Your task to perform on an android device: open the mobile data screen to see how much data has been used Image 0: 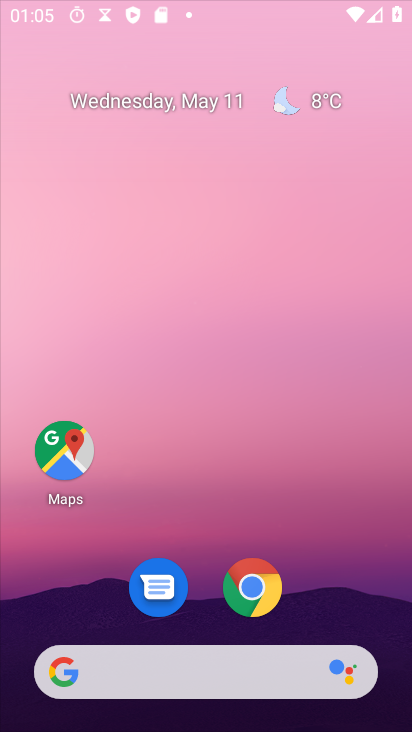
Step 0: click (98, 18)
Your task to perform on an android device: open the mobile data screen to see how much data has been used Image 1: 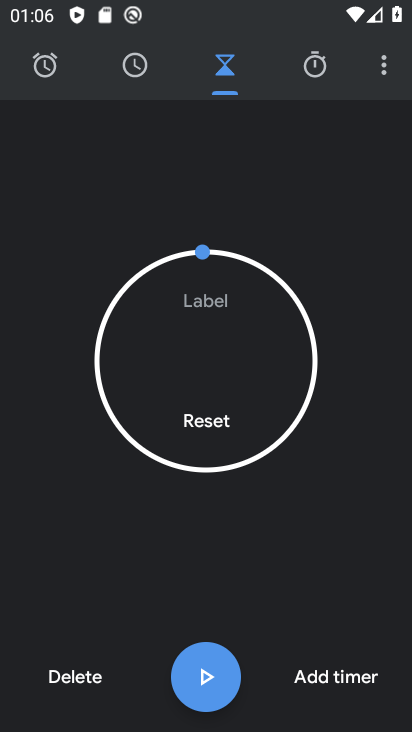
Step 1: press back button
Your task to perform on an android device: open the mobile data screen to see how much data has been used Image 2: 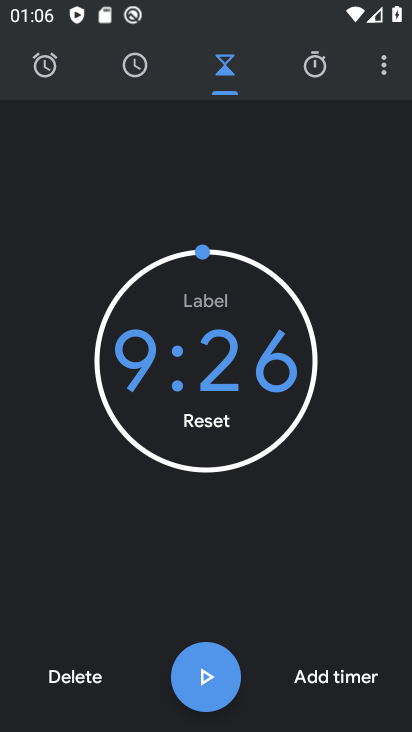
Step 2: press back button
Your task to perform on an android device: open the mobile data screen to see how much data has been used Image 3: 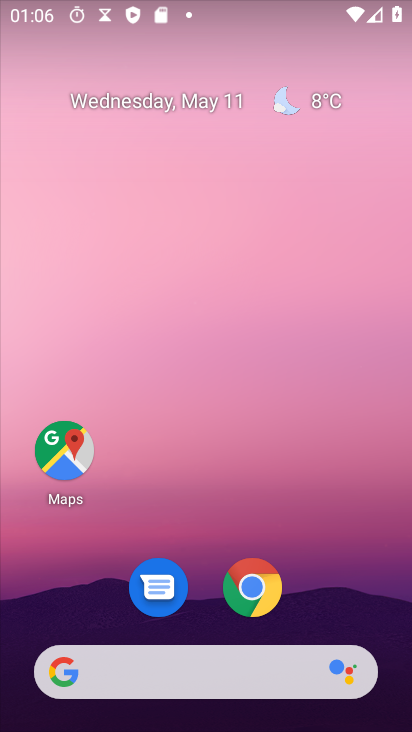
Step 3: drag from (325, 615) to (75, 91)
Your task to perform on an android device: open the mobile data screen to see how much data has been used Image 4: 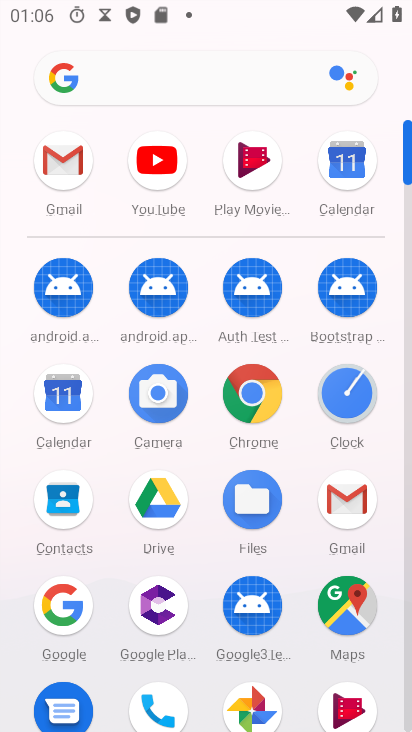
Step 4: drag from (206, 526) to (181, 236)
Your task to perform on an android device: open the mobile data screen to see how much data has been used Image 5: 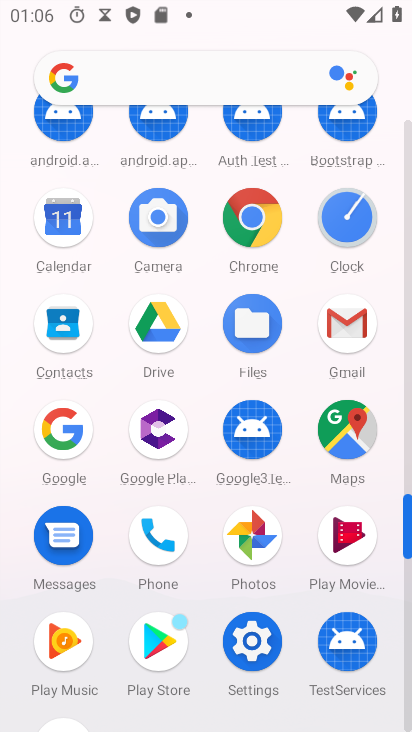
Step 5: click (251, 646)
Your task to perform on an android device: open the mobile data screen to see how much data has been used Image 6: 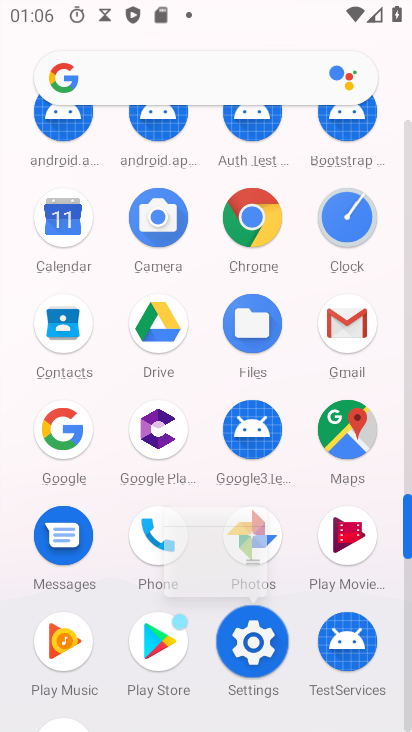
Step 6: click (250, 645)
Your task to perform on an android device: open the mobile data screen to see how much data has been used Image 7: 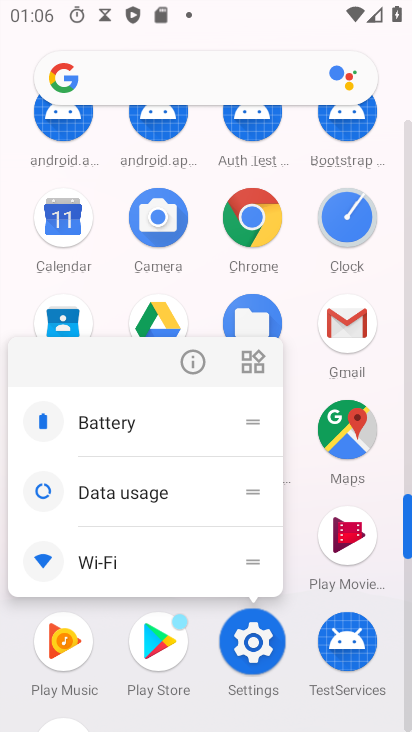
Step 7: click (250, 645)
Your task to perform on an android device: open the mobile data screen to see how much data has been used Image 8: 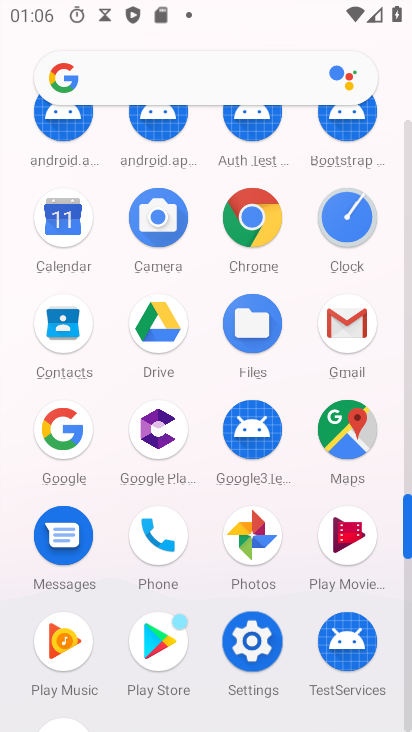
Step 8: click (250, 645)
Your task to perform on an android device: open the mobile data screen to see how much data has been used Image 9: 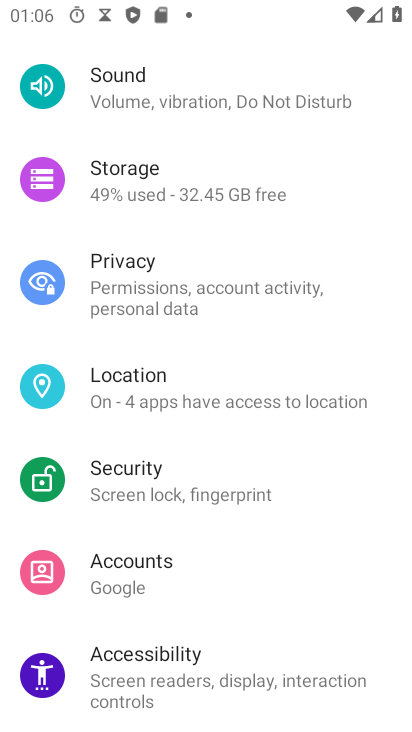
Step 9: drag from (99, 97) to (155, 446)
Your task to perform on an android device: open the mobile data screen to see how much data has been used Image 10: 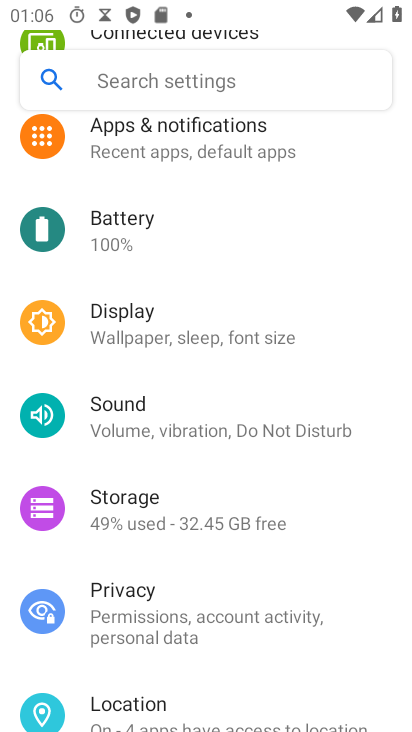
Step 10: drag from (123, 212) to (120, 529)
Your task to perform on an android device: open the mobile data screen to see how much data has been used Image 11: 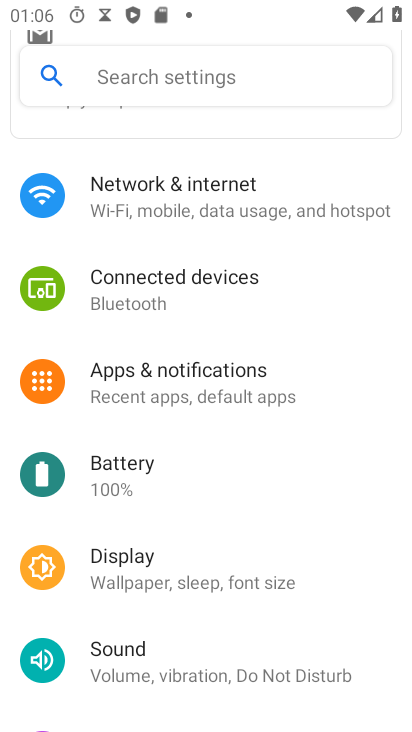
Step 11: click (136, 195)
Your task to perform on an android device: open the mobile data screen to see how much data has been used Image 12: 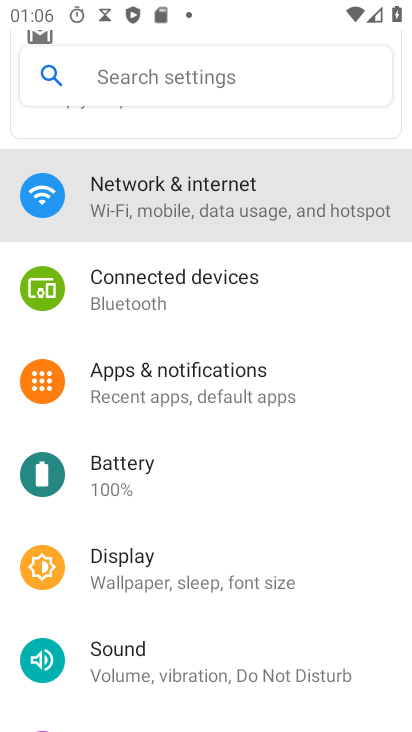
Step 12: click (137, 194)
Your task to perform on an android device: open the mobile data screen to see how much data has been used Image 13: 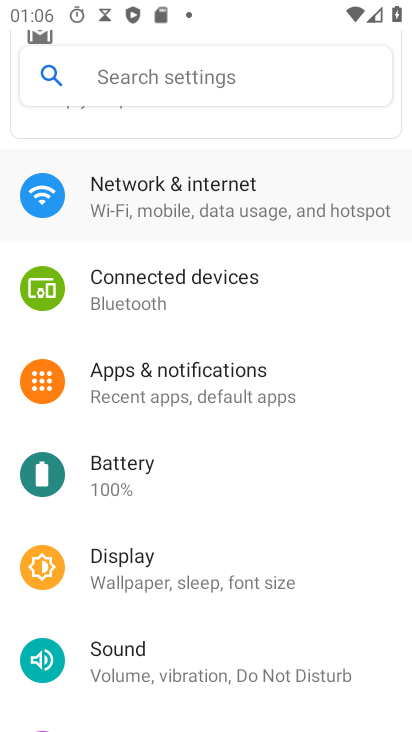
Step 13: click (137, 194)
Your task to perform on an android device: open the mobile data screen to see how much data has been used Image 14: 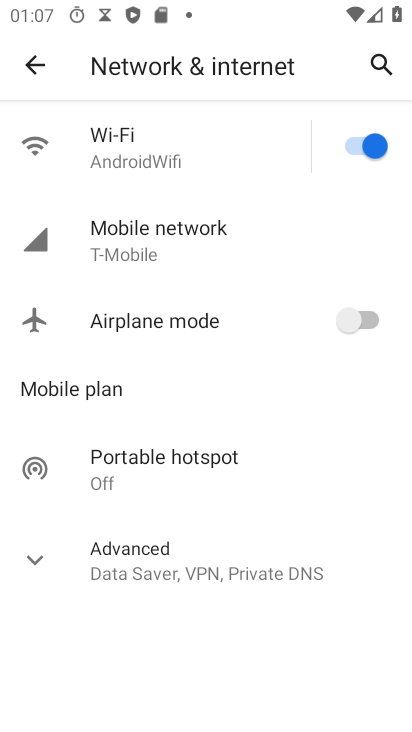
Step 14: task complete